Your task to perform on an android device: What's the weather? Image 0: 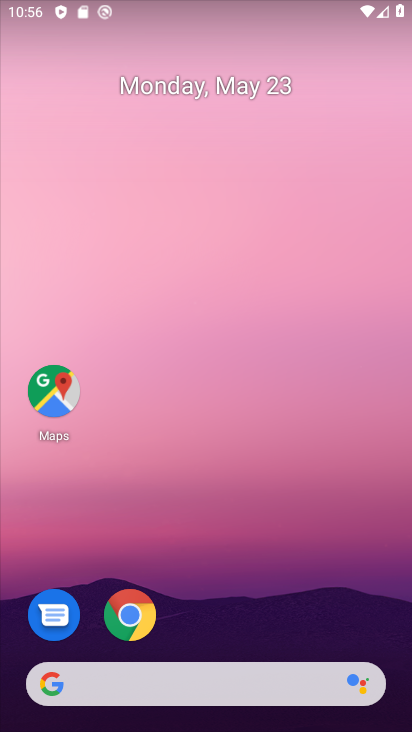
Step 0: click (115, 682)
Your task to perform on an android device: What's the weather? Image 1: 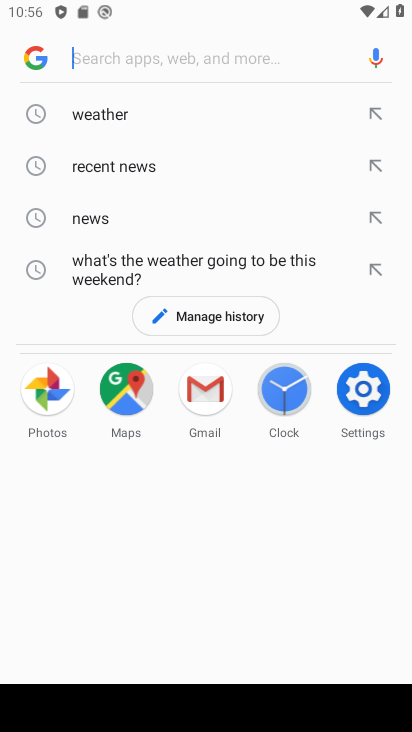
Step 1: click (134, 110)
Your task to perform on an android device: What's the weather? Image 2: 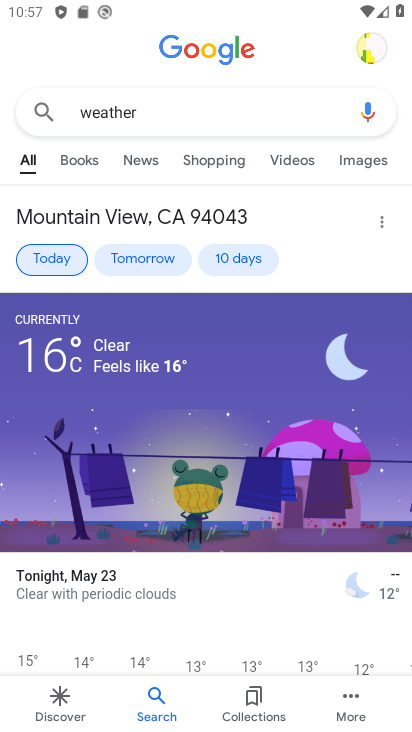
Step 2: task complete